Your task to perform on an android device: Go to wifi settings Image 0: 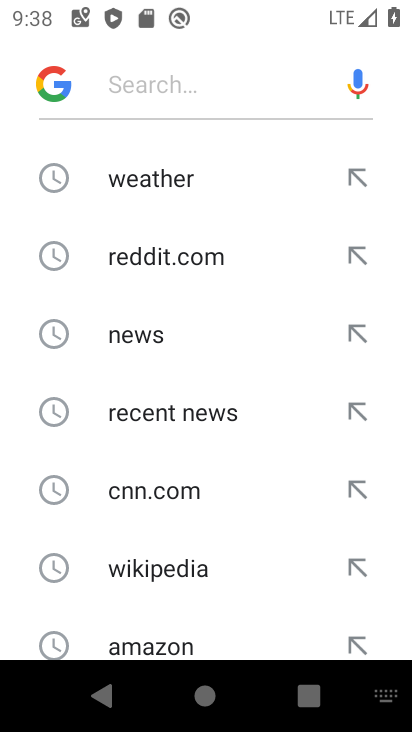
Step 0: press home button
Your task to perform on an android device: Go to wifi settings Image 1: 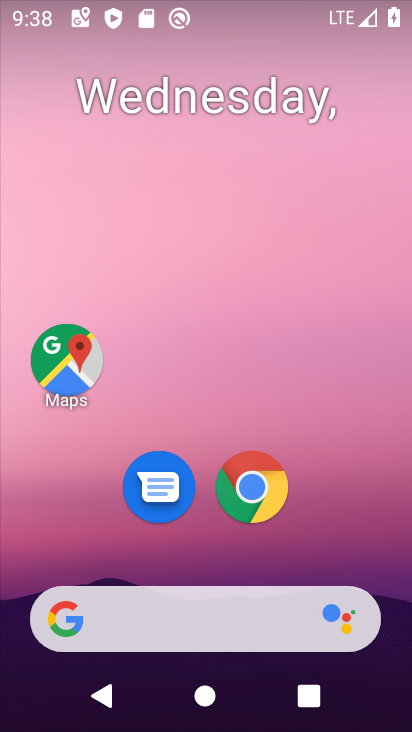
Step 1: drag from (323, 493) to (256, 113)
Your task to perform on an android device: Go to wifi settings Image 2: 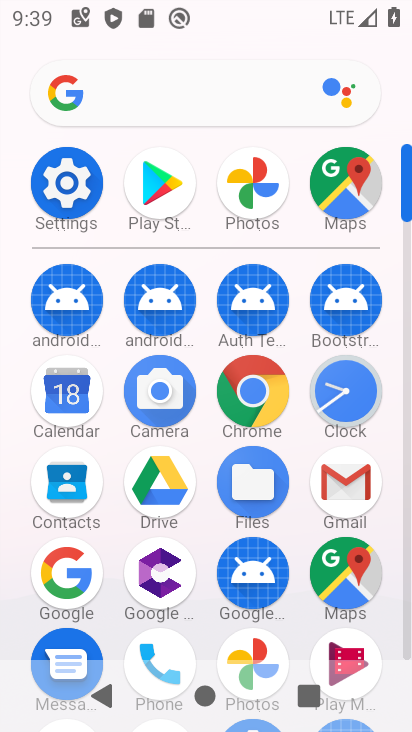
Step 2: click (59, 174)
Your task to perform on an android device: Go to wifi settings Image 3: 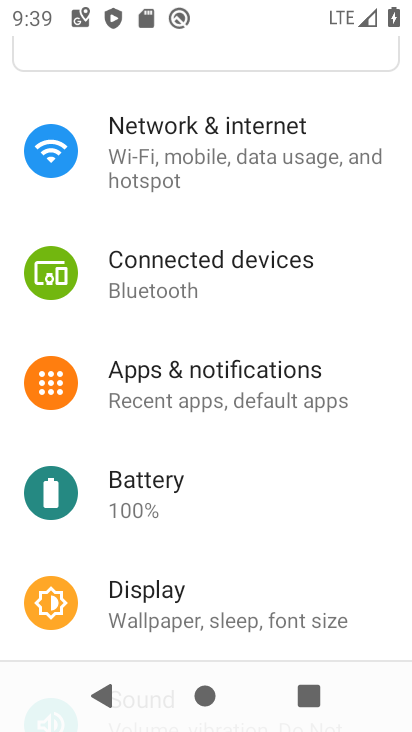
Step 3: click (173, 134)
Your task to perform on an android device: Go to wifi settings Image 4: 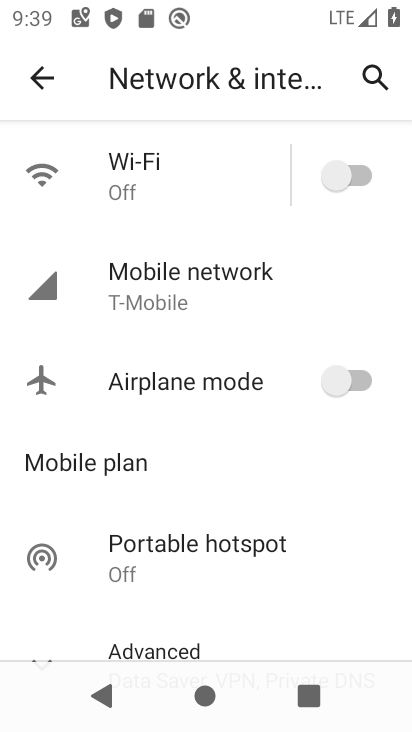
Step 4: click (152, 167)
Your task to perform on an android device: Go to wifi settings Image 5: 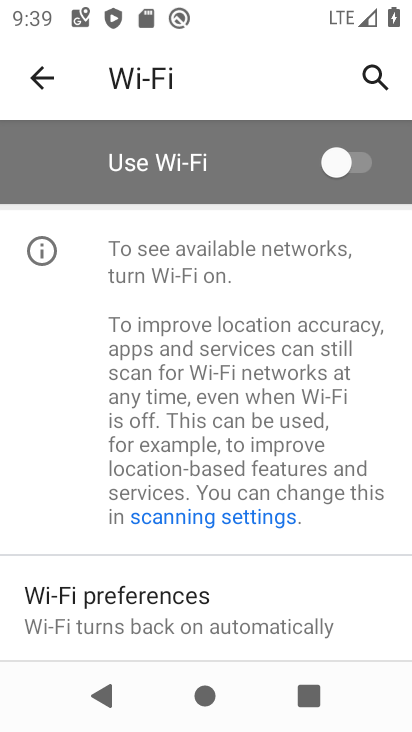
Step 5: task complete